Your task to perform on an android device: Show me popular games on the Play Store Image 0: 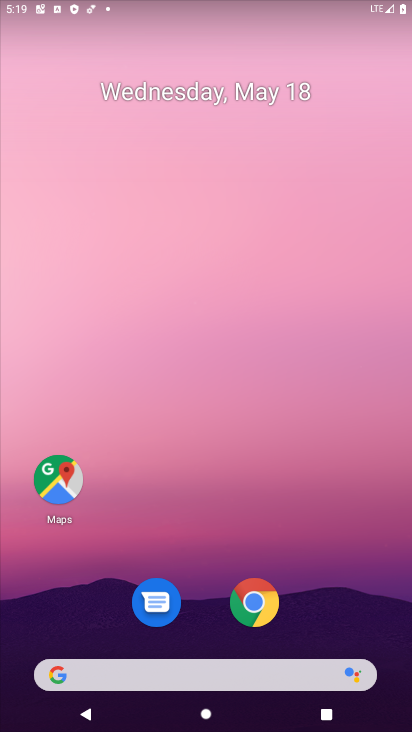
Step 0: drag from (218, 674) to (207, 20)
Your task to perform on an android device: Show me popular games on the Play Store Image 1: 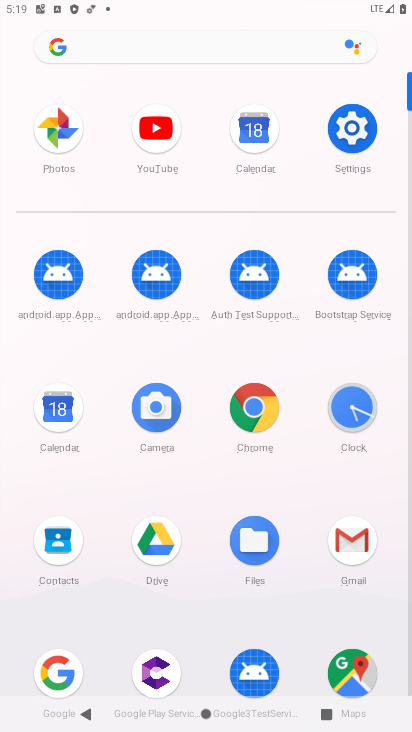
Step 1: drag from (303, 664) to (317, 219)
Your task to perform on an android device: Show me popular games on the Play Store Image 2: 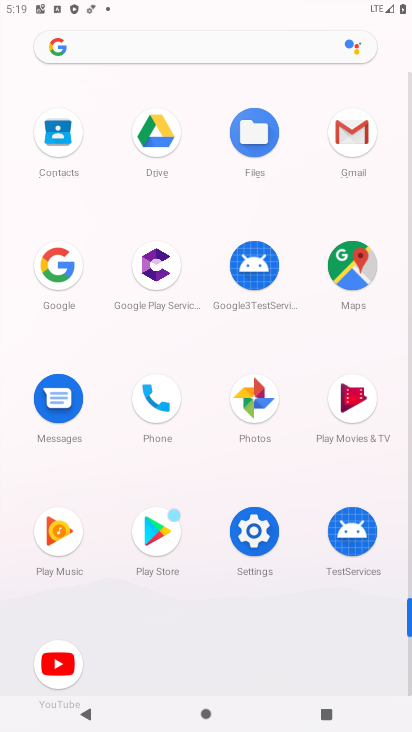
Step 2: click (153, 543)
Your task to perform on an android device: Show me popular games on the Play Store Image 3: 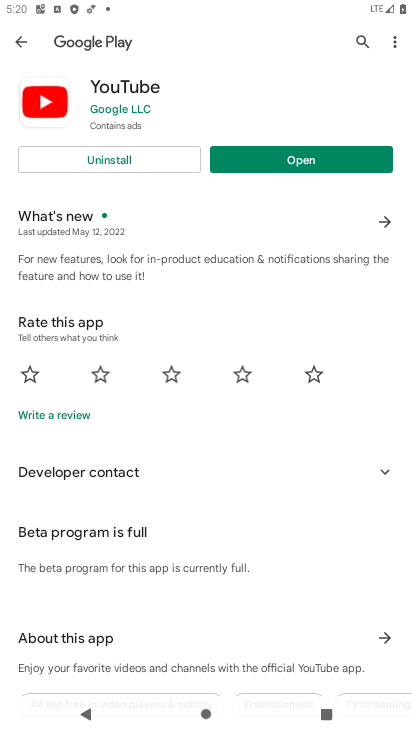
Step 3: press back button
Your task to perform on an android device: Show me popular games on the Play Store Image 4: 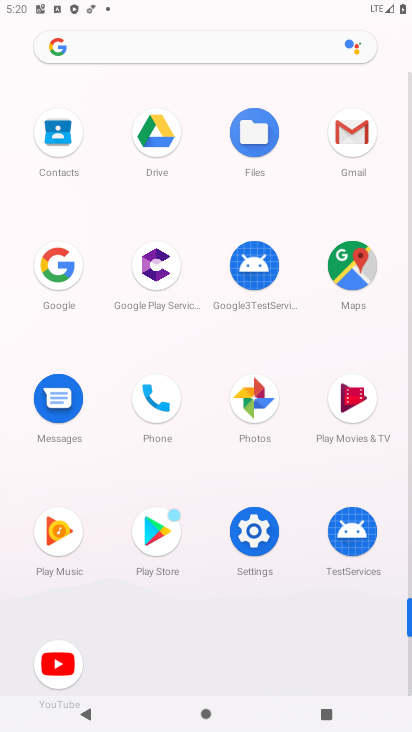
Step 4: click (166, 527)
Your task to perform on an android device: Show me popular games on the Play Store Image 5: 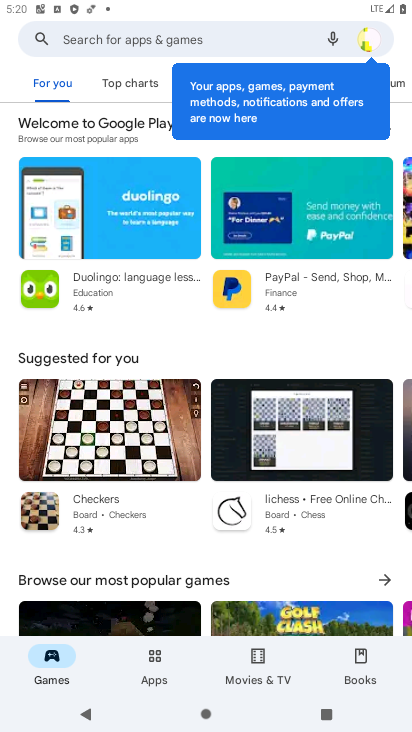
Step 5: click (388, 579)
Your task to perform on an android device: Show me popular games on the Play Store Image 6: 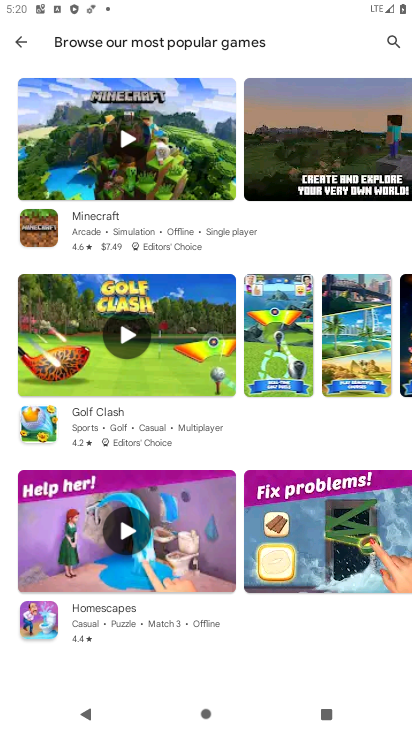
Step 6: task complete